Your task to perform on an android device: Go to Yahoo.com Image 0: 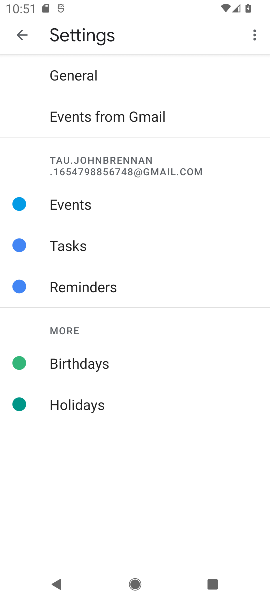
Step 0: press home button
Your task to perform on an android device: Go to Yahoo.com Image 1: 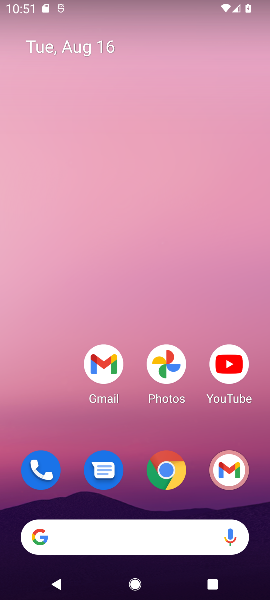
Step 1: click (136, 535)
Your task to perform on an android device: Go to Yahoo.com Image 2: 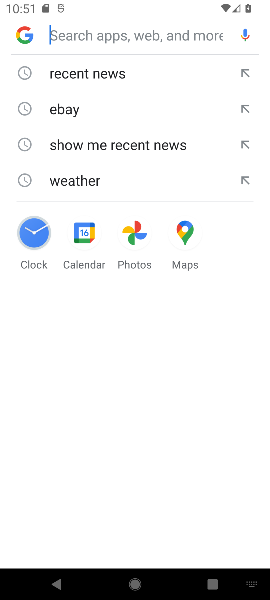
Step 2: type "yahoo.com"
Your task to perform on an android device: Go to Yahoo.com Image 3: 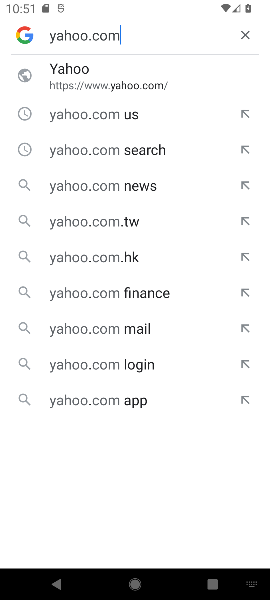
Step 3: click (77, 71)
Your task to perform on an android device: Go to Yahoo.com Image 4: 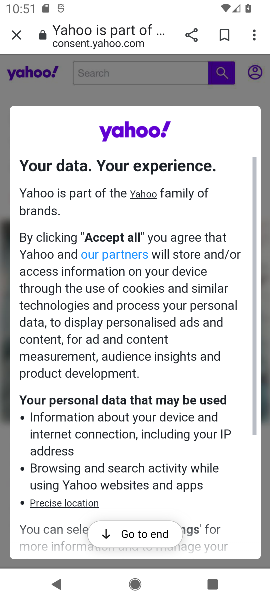
Step 4: click (142, 532)
Your task to perform on an android device: Go to Yahoo.com Image 5: 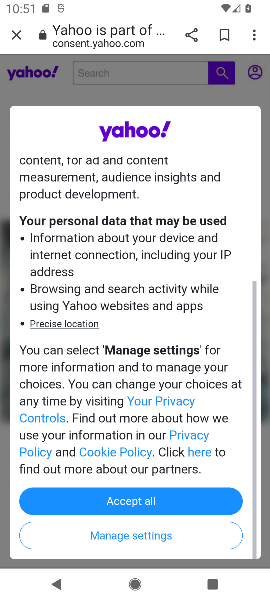
Step 5: click (154, 499)
Your task to perform on an android device: Go to Yahoo.com Image 6: 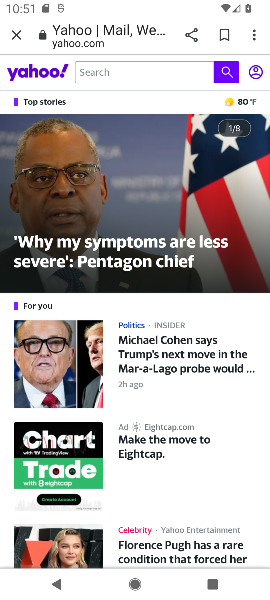
Step 6: task complete